Your task to perform on an android device: turn off sleep mode Image 0: 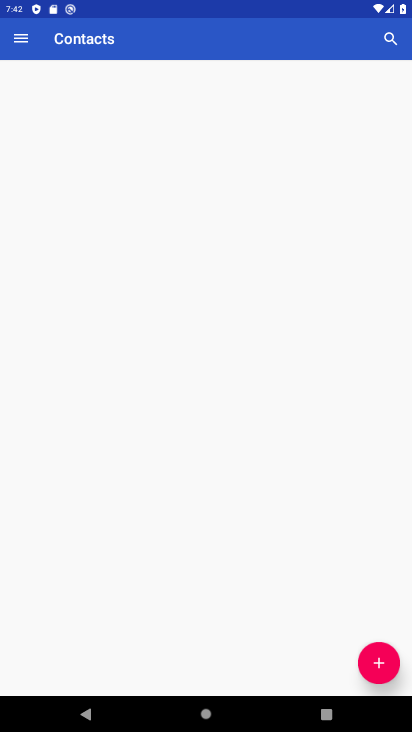
Step 0: press home button
Your task to perform on an android device: turn off sleep mode Image 1: 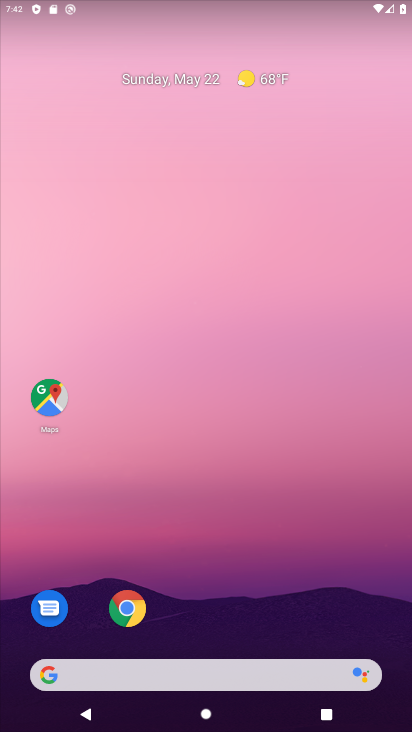
Step 1: drag from (244, 725) to (233, 94)
Your task to perform on an android device: turn off sleep mode Image 2: 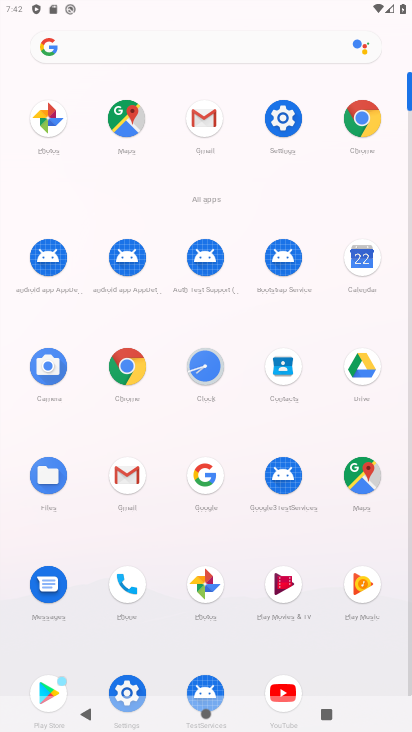
Step 2: click (279, 121)
Your task to perform on an android device: turn off sleep mode Image 3: 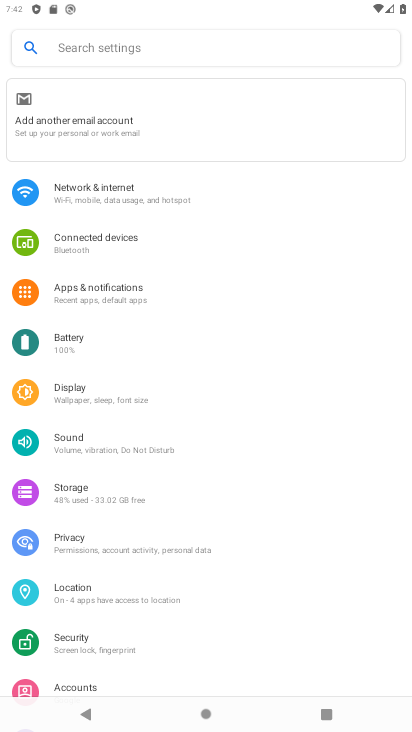
Step 3: click (120, 196)
Your task to perform on an android device: turn off sleep mode Image 4: 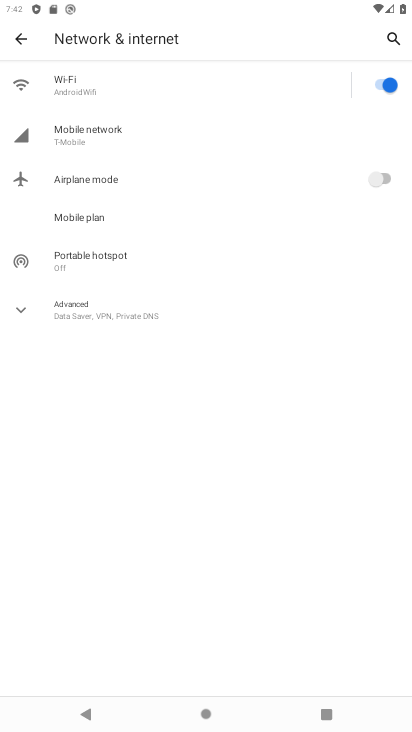
Step 4: click (21, 34)
Your task to perform on an android device: turn off sleep mode Image 5: 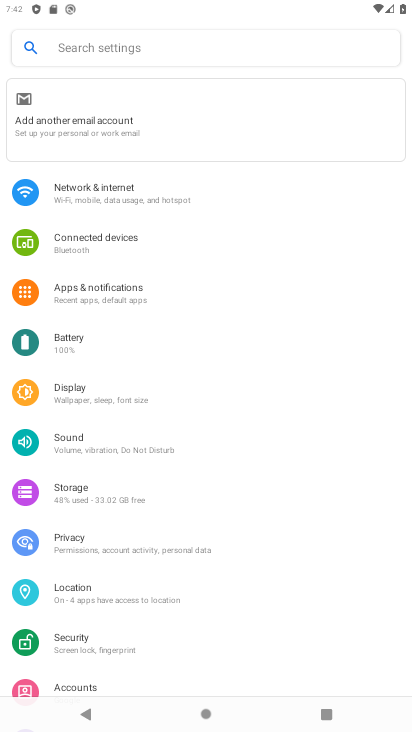
Step 5: task complete